Your task to perform on an android device: Go to ESPN.com Image 0: 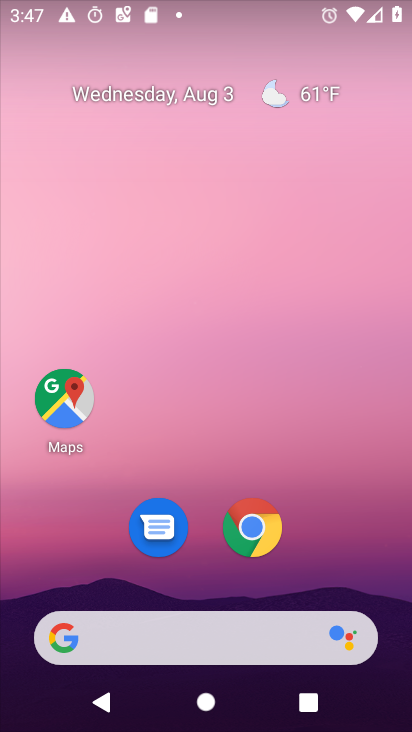
Step 0: drag from (323, 565) to (315, 124)
Your task to perform on an android device: Go to ESPN.com Image 1: 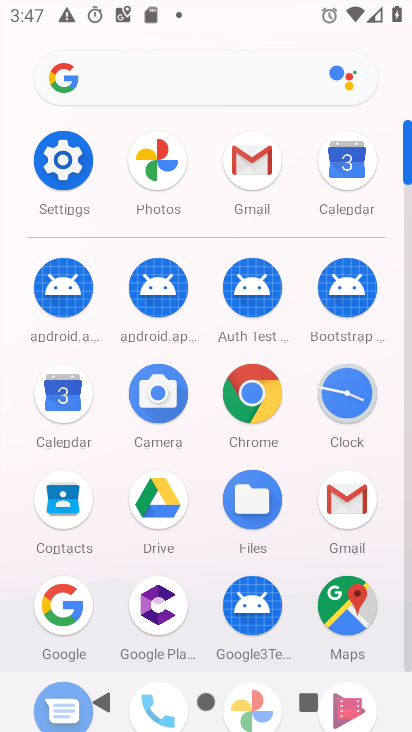
Step 1: click (249, 396)
Your task to perform on an android device: Go to ESPN.com Image 2: 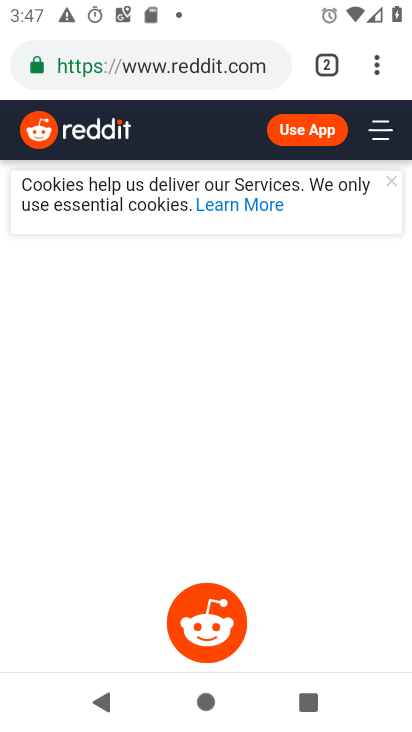
Step 2: click (220, 69)
Your task to perform on an android device: Go to ESPN.com Image 3: 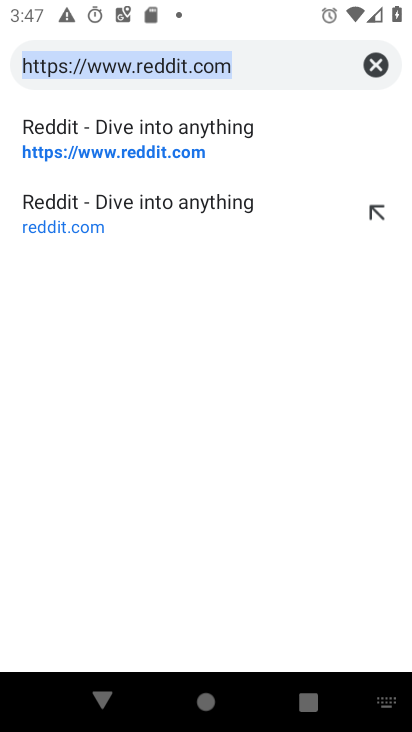
Step 3: click (374, 64)
Your task to perform on an android device: Go to ESPN.com Image 4: 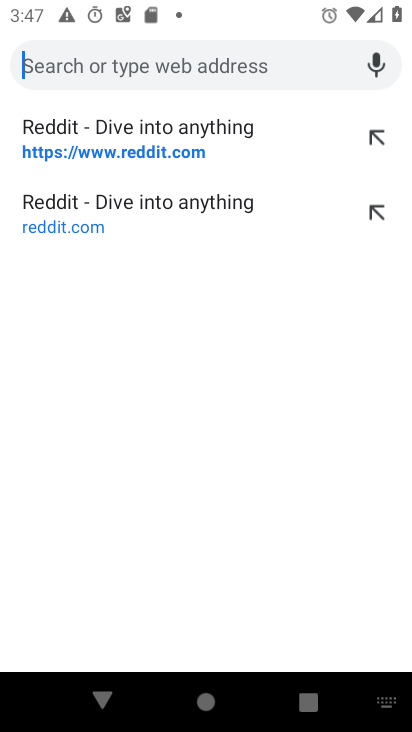
Step 4: type "espn.com"
Your task to perform on an android device: Go to ESPN.com Image 5: 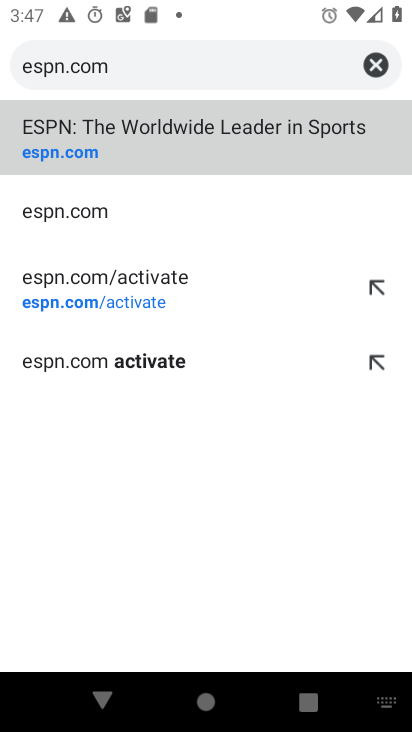
Step 5: click (100, 146)
Your task to perform on an android device: Go to ESPN.com Image 6: 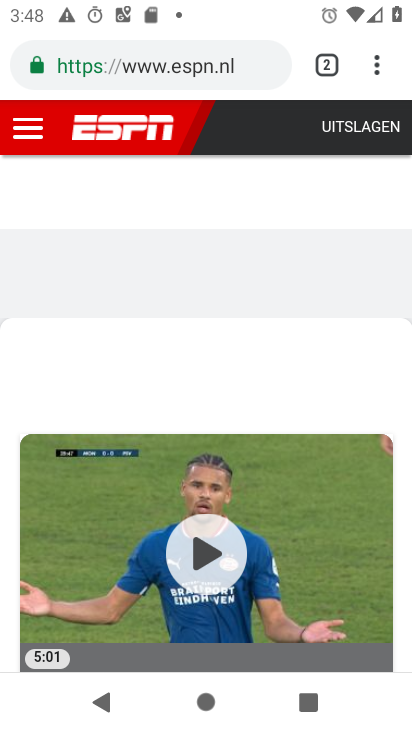
Step 6: task complete